Your task to perform on an android device: change your default location settings in chrome Image 0: 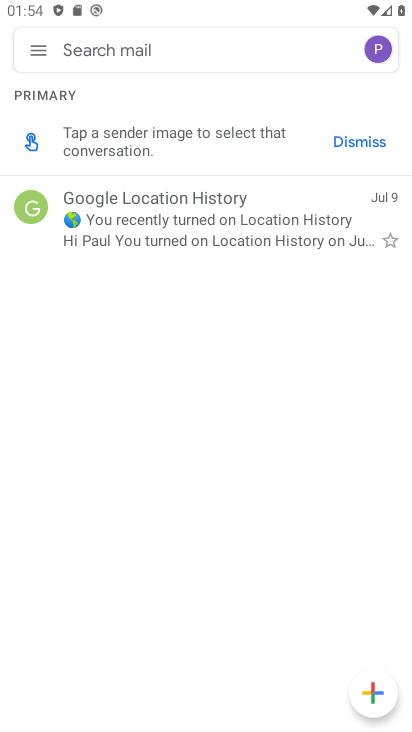
Step 0: press home button
Your task to perform on an android device: change your default location settings in chrome Image 1: 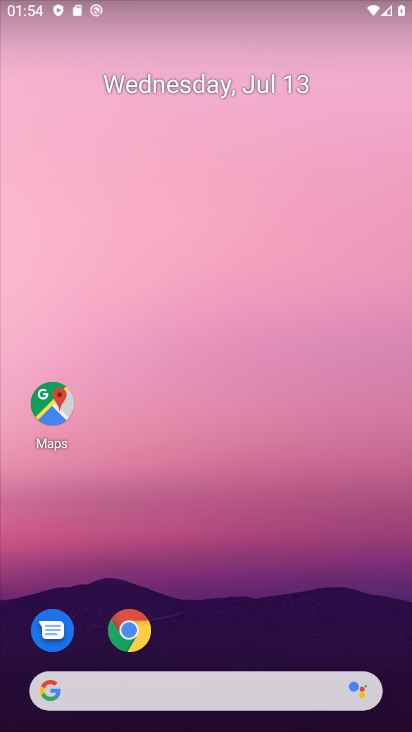
Step 1: click (142, 648)
Your task to perform on an android device: change your default location settings in chrome Image 2: 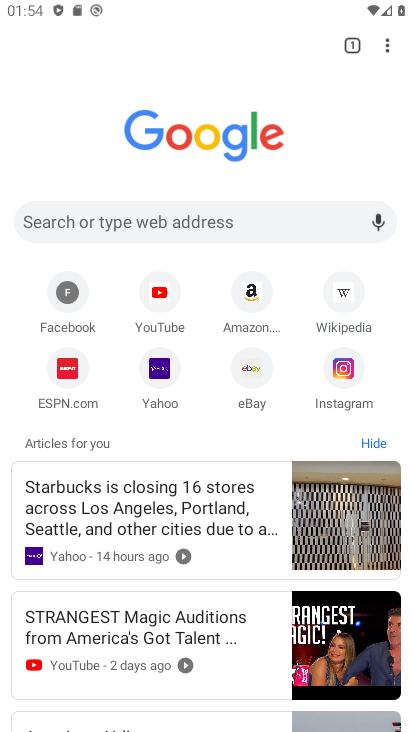
Step 2: click (385, 43)
Your task to perform on an android device: change your default location settings in chrome Image 3: 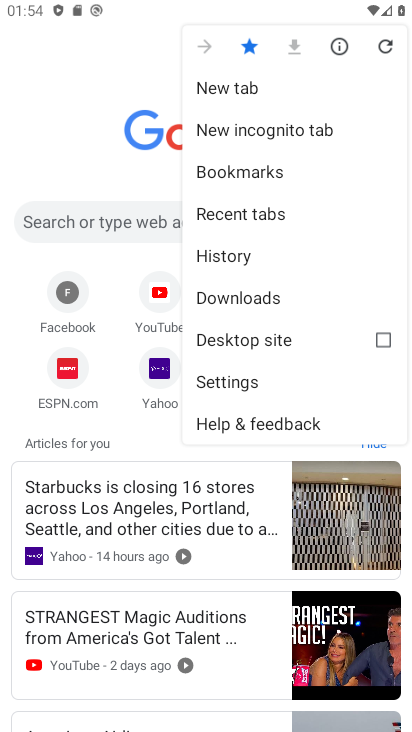
Step 3: click (249, 382)
Your task to perform on an android device: change your default location settings in chrome Image 4: 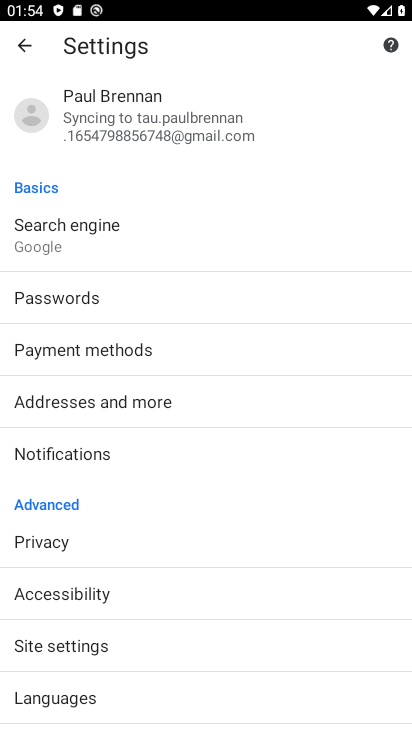
Step 4: click (119, 650)
Your task to perform on an android device: change your default location settings in chrome Image 5: 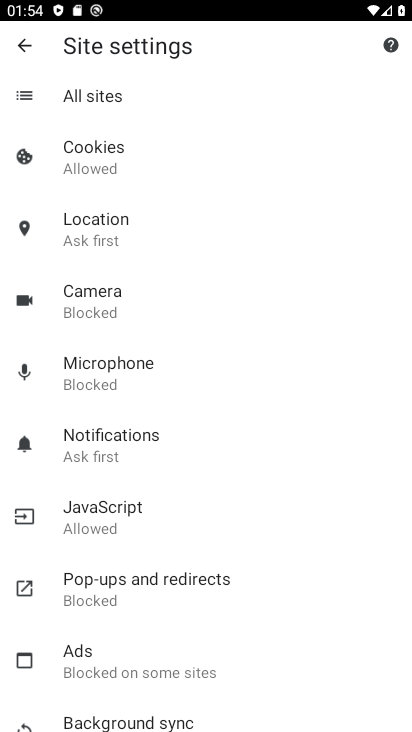
Step 5: click (111, 245)
Your task to perform on an android device: change your default location settings in chrome Image 6: 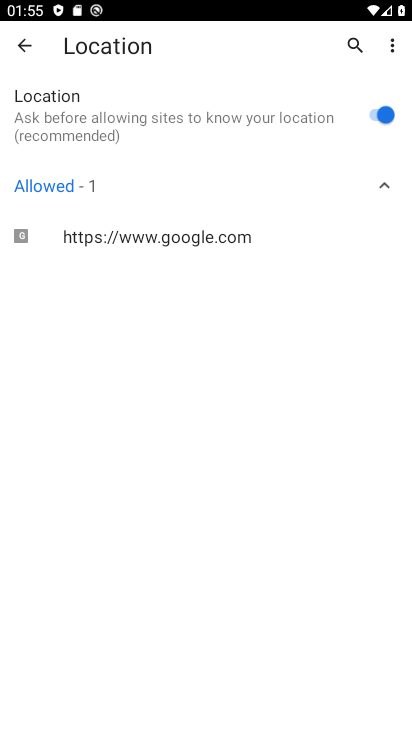
Step 6: click (363, 109)
Your task to perform on an android device: change your default location settings in chrome Image 7: 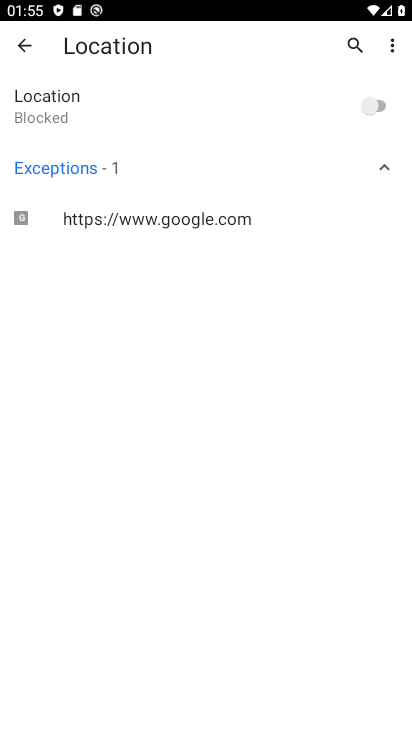
Step 7: task complete